Your task to perform on an android device: Go to CNN.com Image 0: 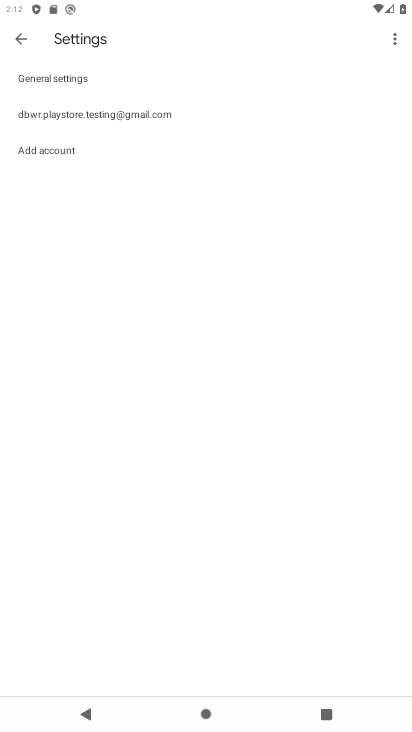
Step 0: press back button
Your task to perform on an android device: Go to CNN.com Image 1: 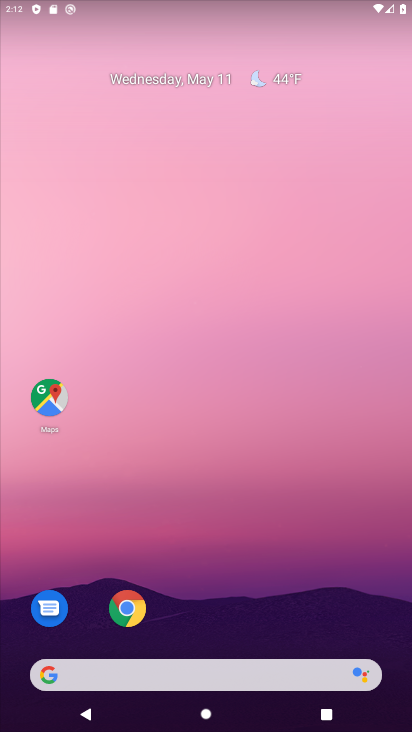
Step 1: click (139, 612)
Your task to perform on an android device: Go to CNN.com Image 2: 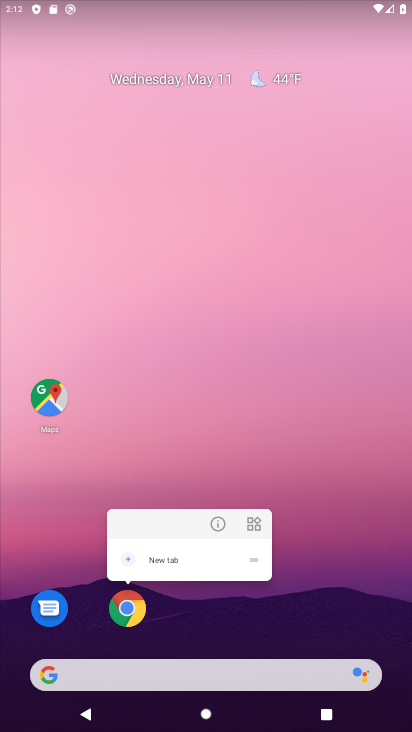
Step 2: click (138, 613)
Your task to perform on an android device: Go to CNN.com Image 3: 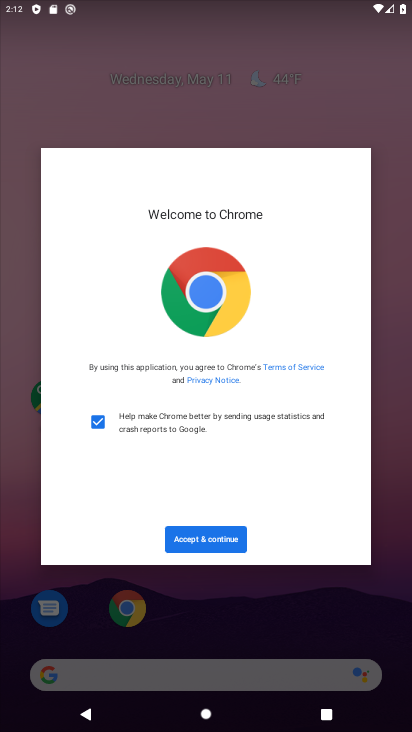
Step 3: click (218, 551)
Your task to perform on an android device: Go to CNN.com Image 4: 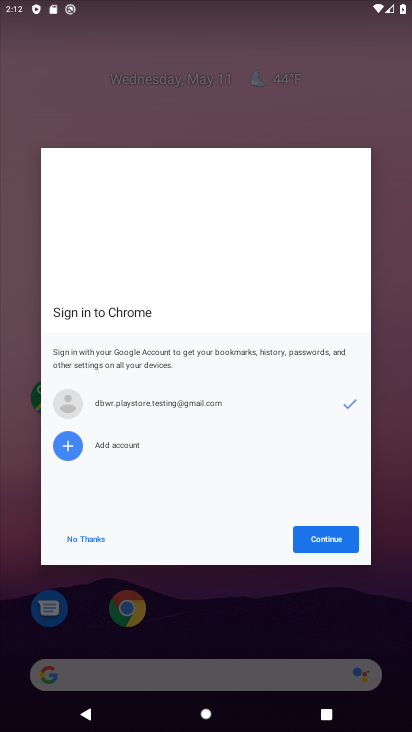
Step 4: click (321, 539)
Your task to perform on an android device: Go to CNN.com Image 5: 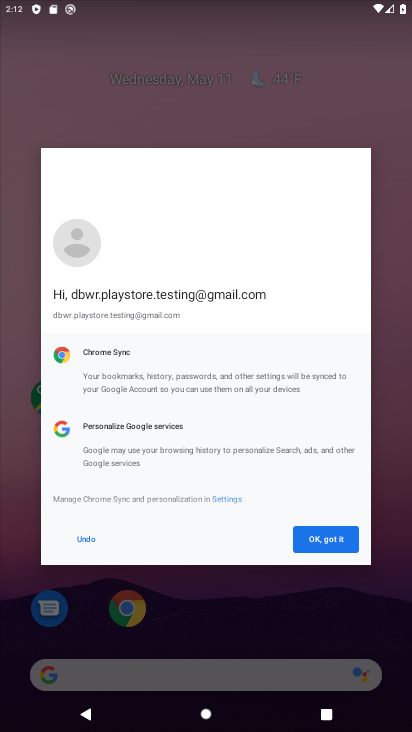
Step 5: click (324, 538)
Your task to perform on an android device: Go to CNN.com Image 6: 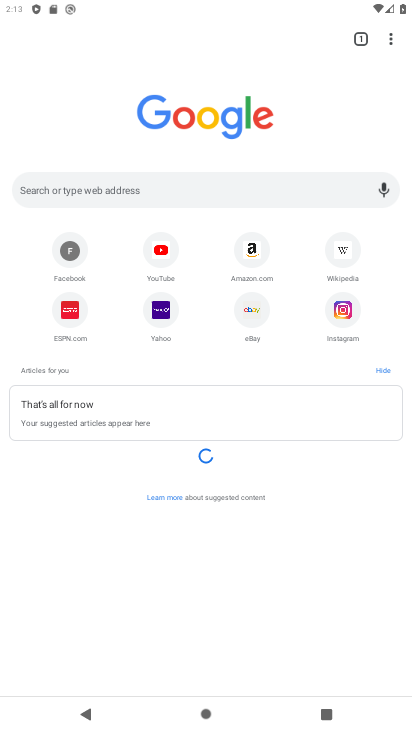
Step 6: click (145, 208)
Your task to perform on an android device: Go to CNN.com Image 7: 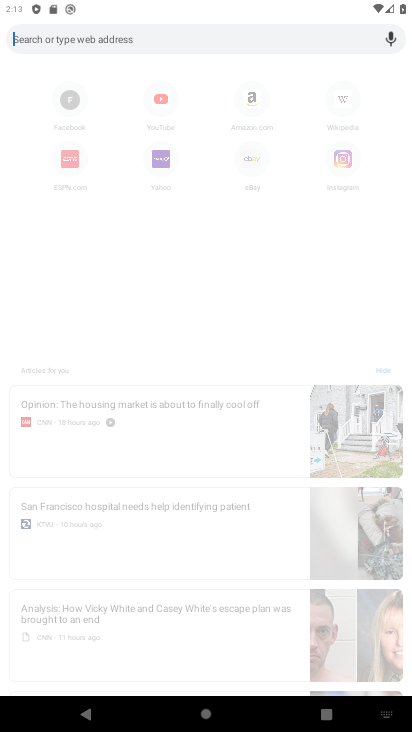
Step 7: type "CNN.com"
Your task to perform on an android device: Go to CNN.com Image 8: 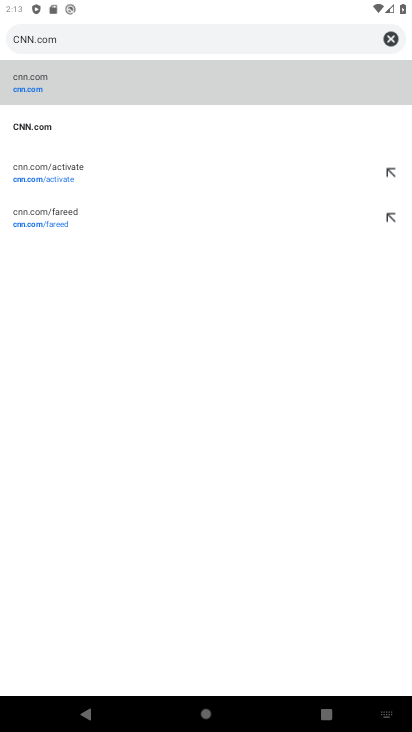
Step 8: click (122, 141)
Your task to perform on an android device: Go to CNN.com Image 9: 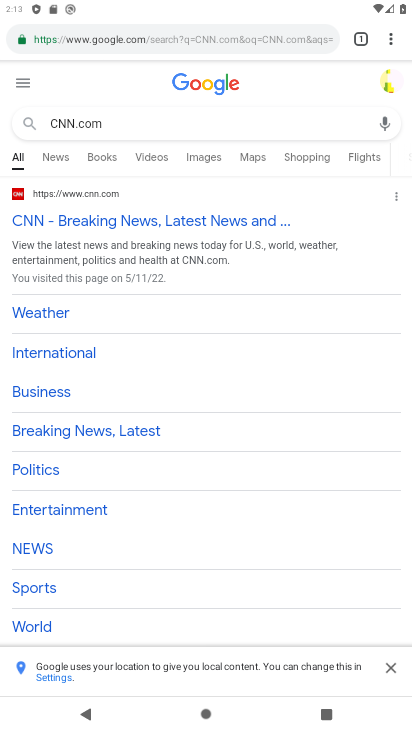
Step 9: click (69, 219)
Your task to perform on an android device: Go to CNN.com Image 10: 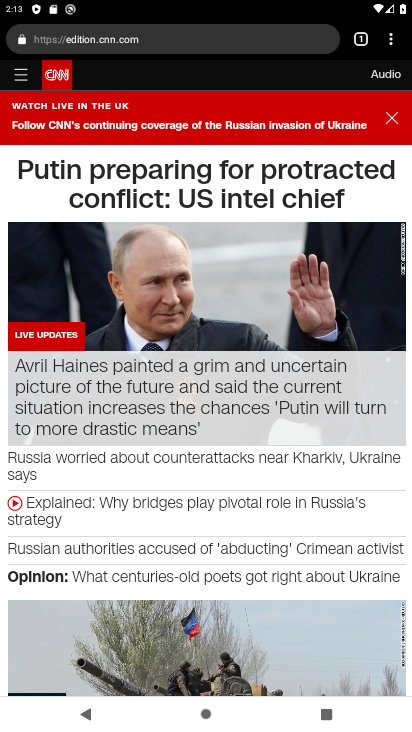
Step 10: task complete